Your task to perform on an android device: Open Android settings Image 0: 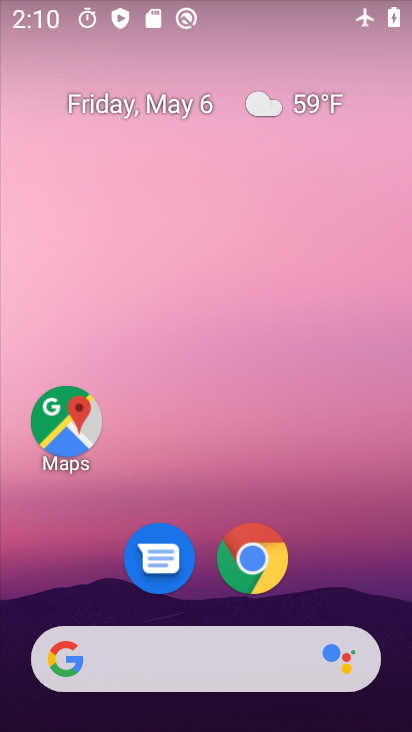
Step 0: drag from (197, 719) to (187, 255)
Your task to perform on an android device: Open Android settings Image 1: 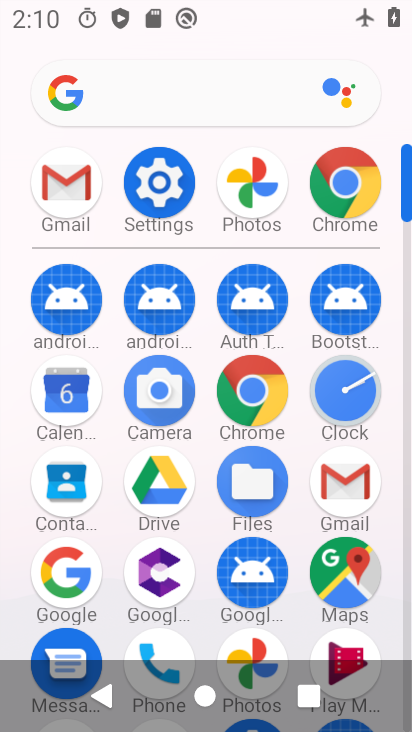
Step 1: click (156, 185)
Your task to perform on an android device: Open Android settings Image 2: 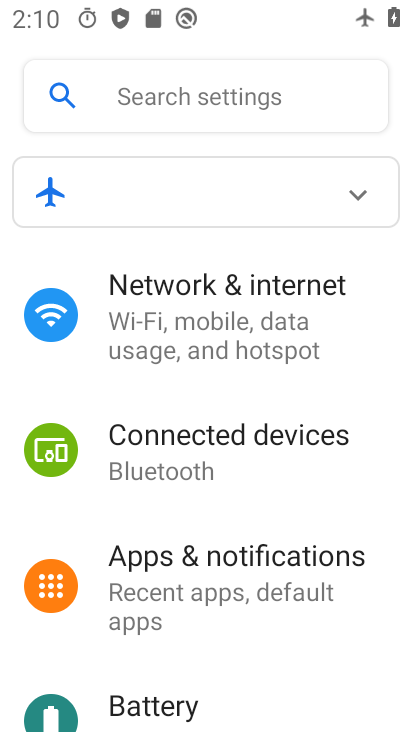
Step 2: task complete